Your task to perform on an android device: Open notification settings Image 0: 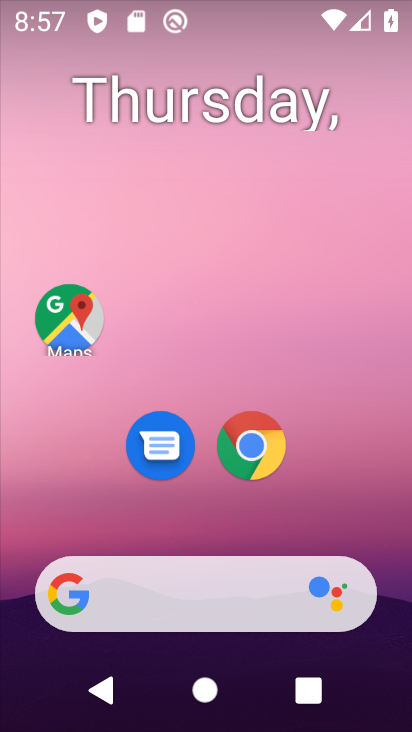
Step 0: drag from (242, 117) to (244, 53)
Your task to perform on an android device: Open notification settings Image 1: 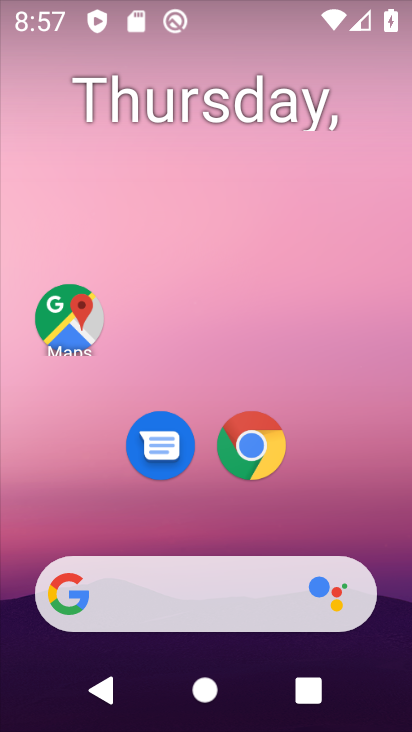
Step 1: drag from (203, 453) to (208, 4)
Your task to perform on an android device: Open notification settings Image 2: 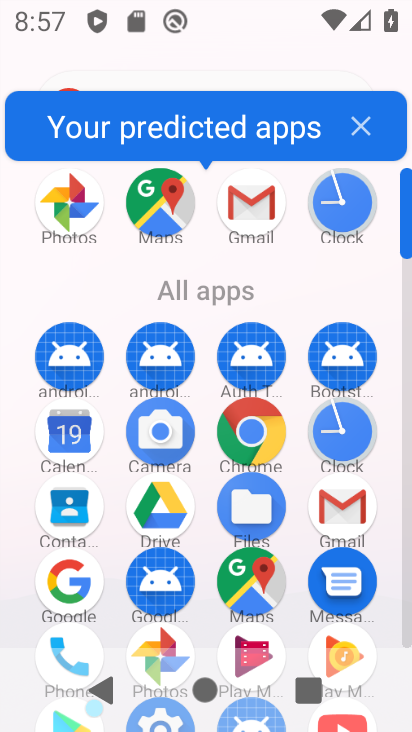
Step 2: drag from (205, 640) to (237, 246)
Your task to perform on an android device: Open notification settings Image 3: 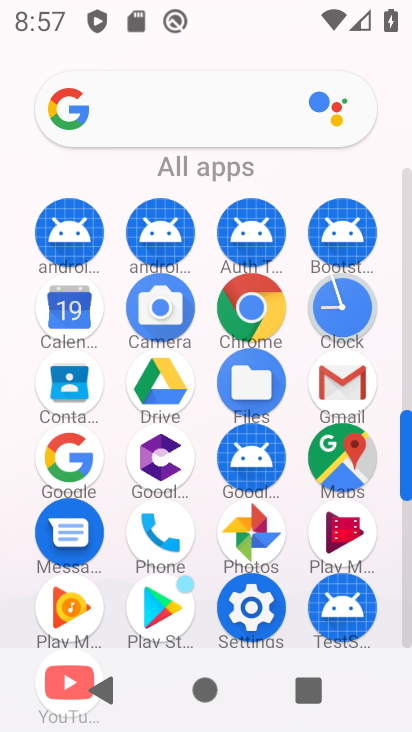
Step 3: click (239, 594)
Your task to perform on an android device: Open notification settings Image 4: 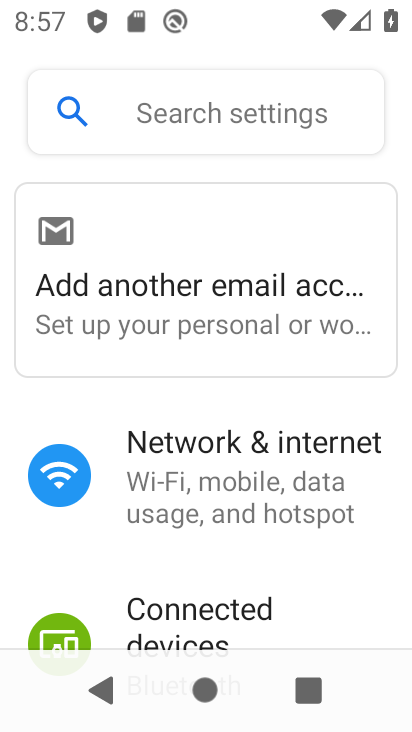
Step 4: drag from (256, 568) to (310, 172)
Your task to perform on an android device: Open notification settings Image 5: 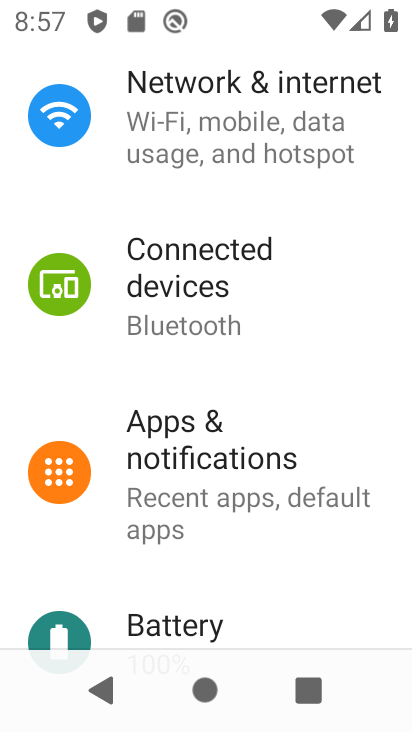
Step 5: click (211, 462)
Your task to perform on an android device: Open notification settings Image 6: 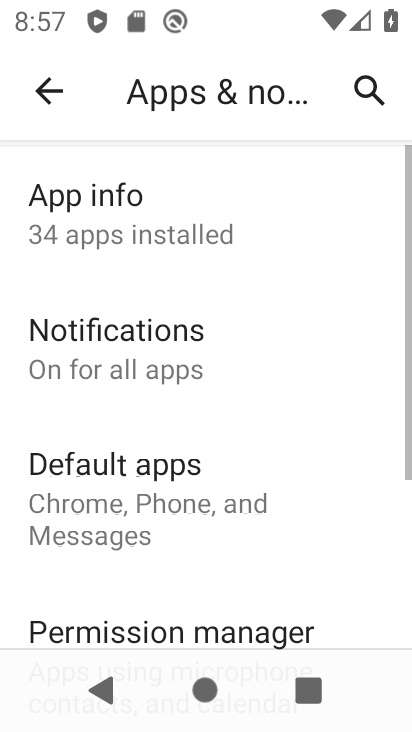
Step 6: drag from (216, 471) to (319, 60)
Your task to perform on an android device: Open notification settings Image 7: 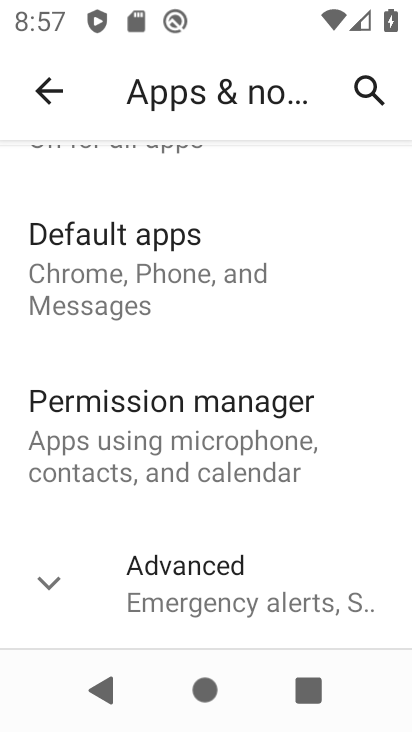
Step 7: drag from (199, 169) to (223, 439)
Your task to perform on an android device: Open notification settings Image 8: 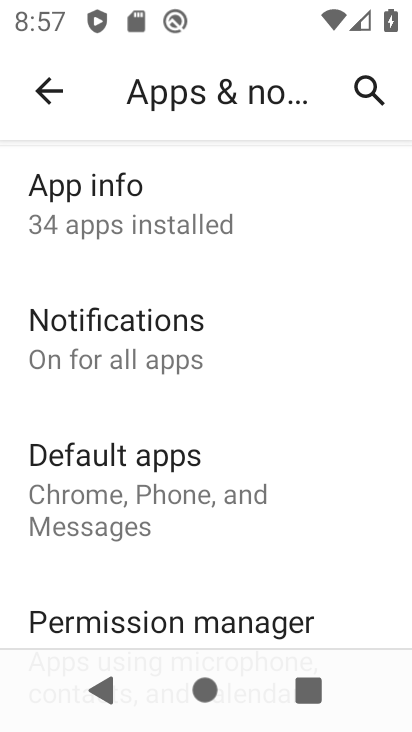
Step 8: click (123, 333)
Your task to perform on an android device: Open notification settings Image 9: 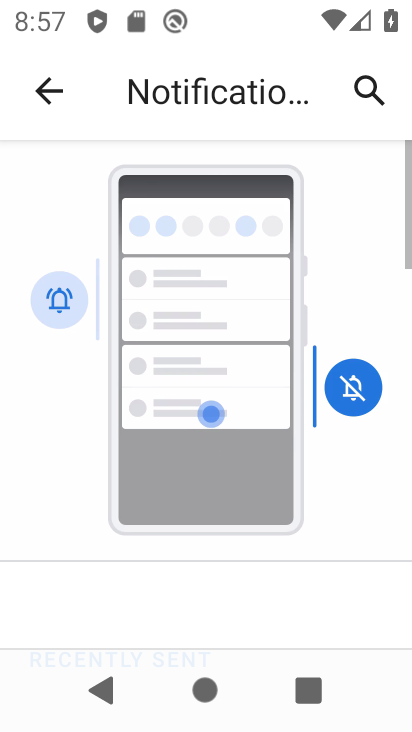
Step 9: task complete